Your task to perform on an android device: toggle data saver in the chrome app Image 0: 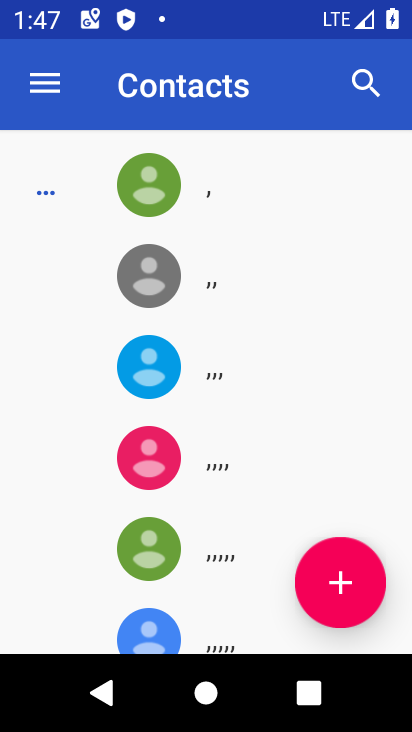
Step 0: press home button
Your task to perform on an android device: toggle data saver in the chrome app Image 1: 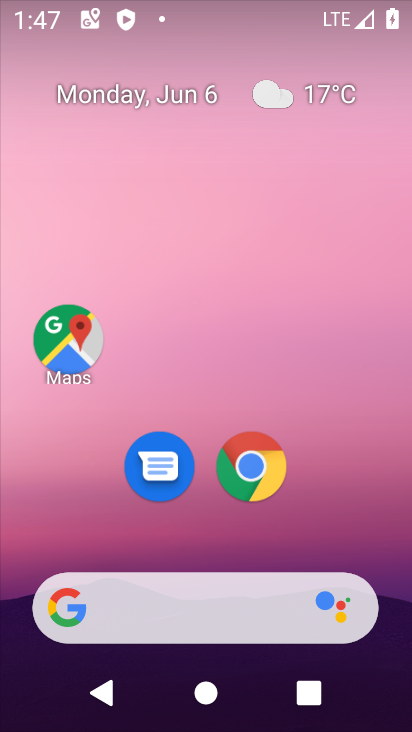
Step 1: click (250, 474)
Your task to perform on an android device: toggle data saver in the chrome app Image 2: 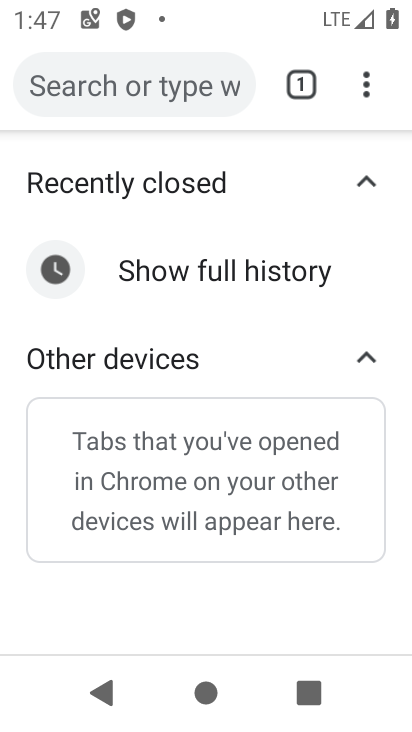
Step 2: drag from (365, 92) to (143, 518)
Your task to perform on an android device: toggle data saver in the chrome app Image 3: 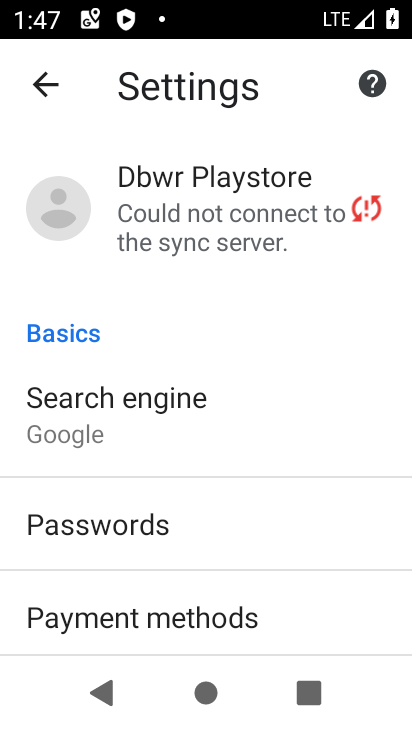
Step 3: drag from (301, 626) to (376, 89)
Your task to perform on an android device: toggle data saver in the chrome app Image 4: 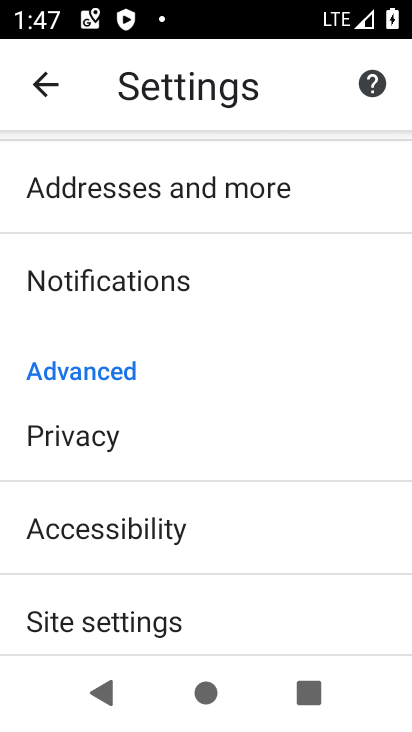
Step 4: drag from (281, 605) to (270, 150)
Your task to perform on an android device: toggle data saver in the chrome app Image 5: 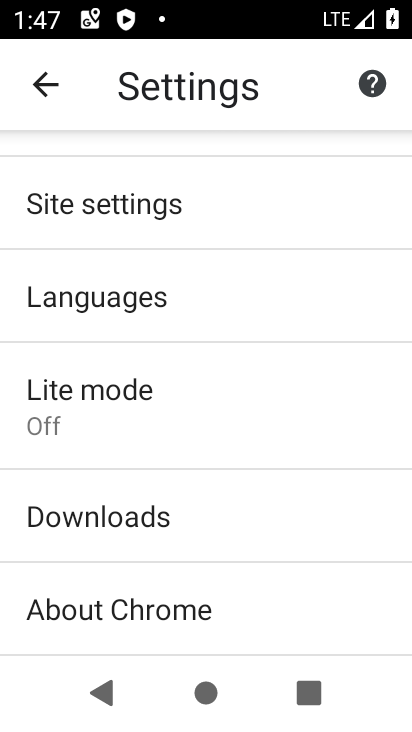
Step 5: click (83, 402)
Your task to perform on an android device: toggle data saver in the chrome app Image 6: 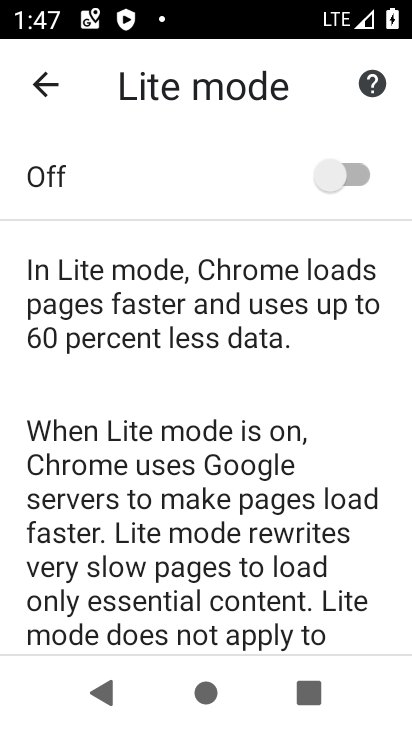
Step 6: click (324, 174)
Your task to perform on an android device: toggle data saver in the chrome app Image 7: 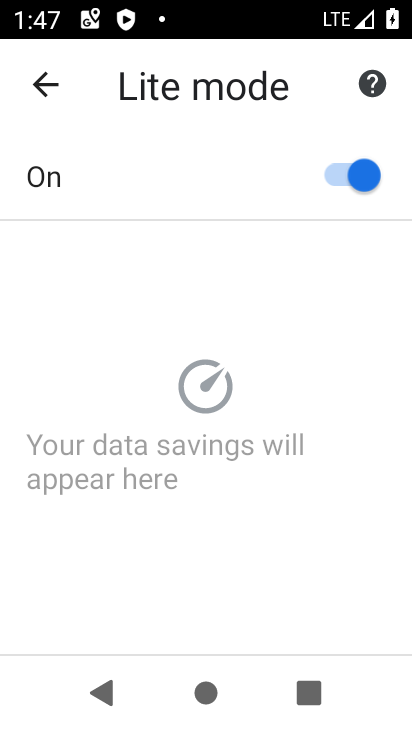
Step 7: task complete